Your task to perform on an android device: choose inbox layout in the gmail app Image 0: 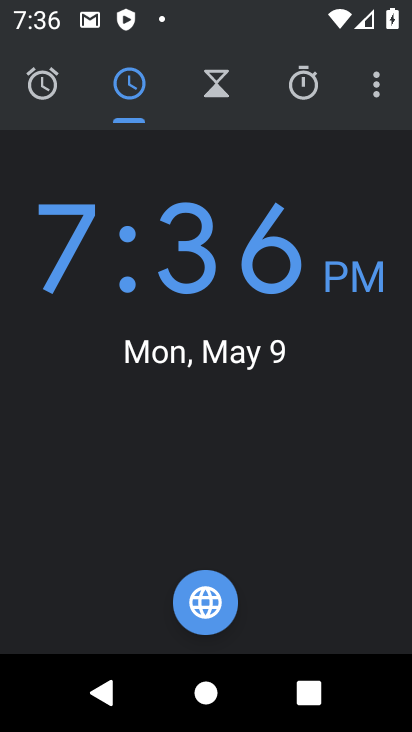
Step 0: press home button
Your task to perform on an android device: choose inbox layout in the gmail app Image 1: 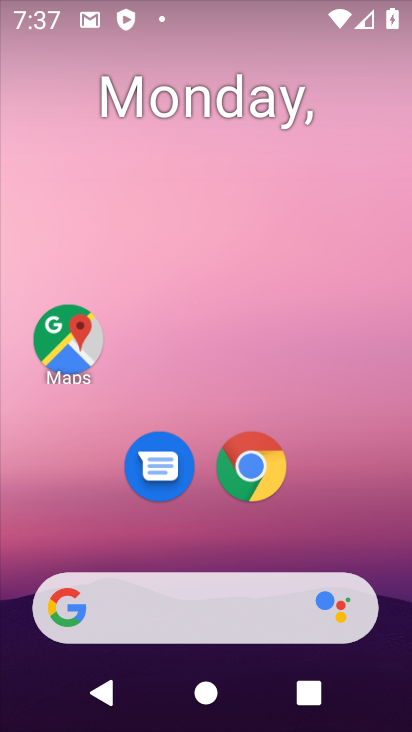
Step 1: drag from (293, 365) to (265, 91)
Your task to perform on an android device: choose inbox layout in the gmail app Image 2: 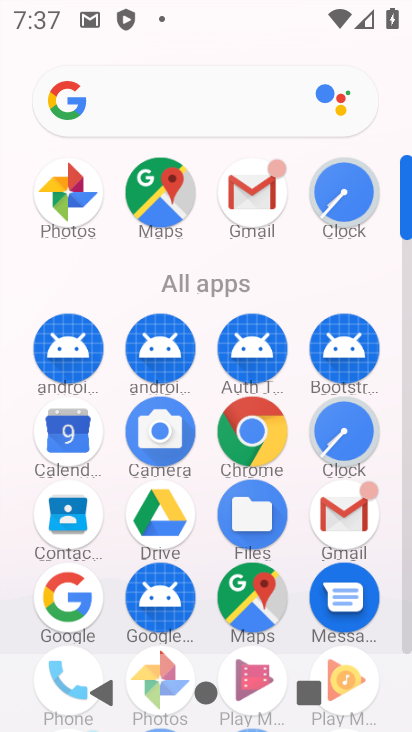
Step 2: click (251, 192)
Your task to perform on an android device: choose inbox layout in the gmail app Image 3: 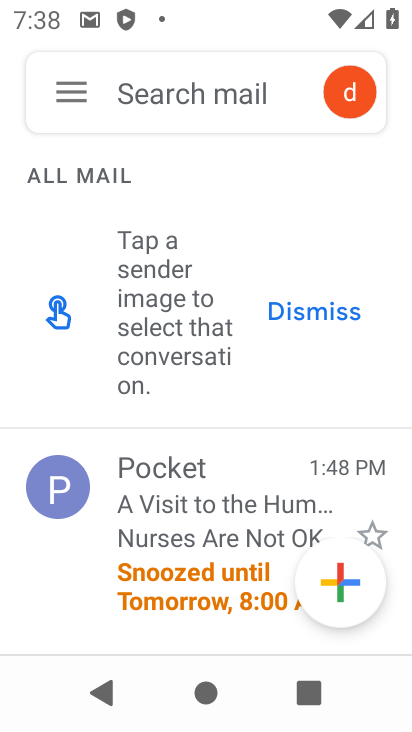
Step 3: click (57, 90)
Your task to perform on an android device: choose inbox layout in the gmail app Image 4: 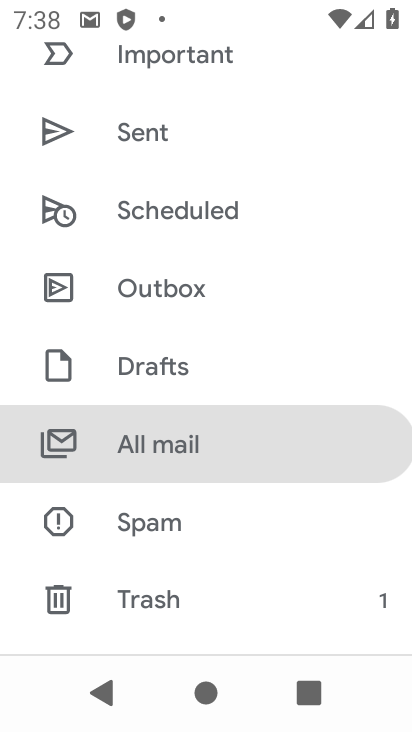
Step 4: drag from (145, 607) to (189, 143)
Your task to perform on an android device: choose inbox layout in the gmail app Image 5: 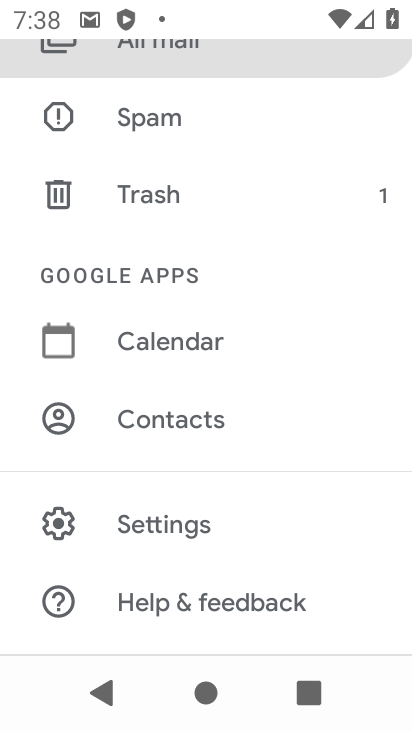
Step 5: click (160, 529)
Your task to perform on an android device: choose inbox layout in the gmail app Image 6: 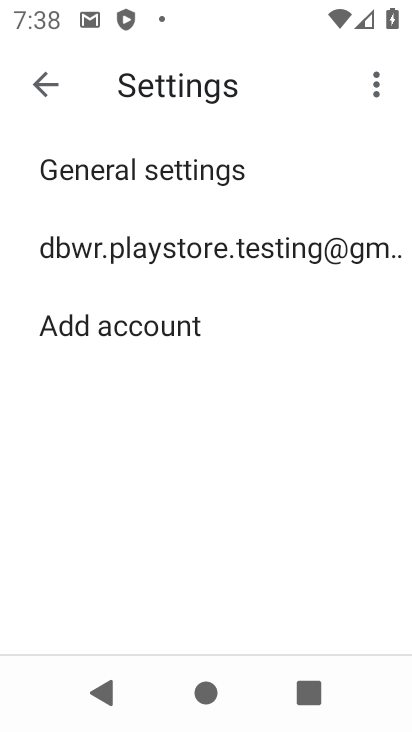
Step 6: click (110, 239)
Your task to perform on an android device: choose inbox layout in the gmail app Image 7: 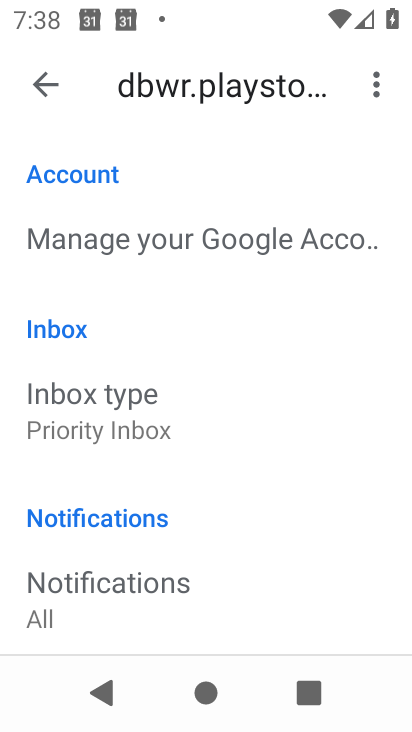
Step 7: click (146, 421)
Your task to perform on an android device: choose inbox layout in the gmail app Image 8: 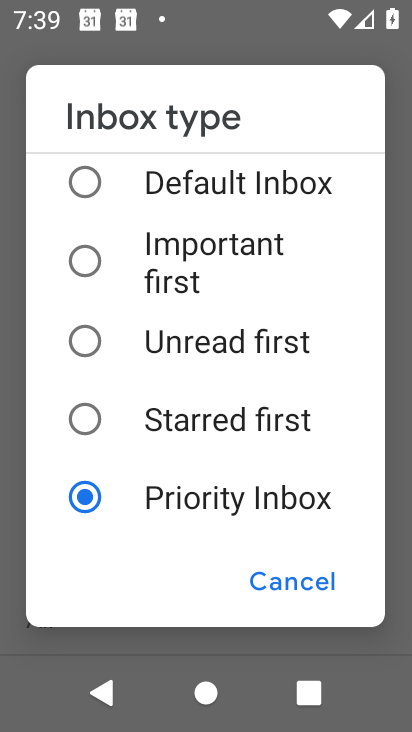
Step 8: task complete